Your task to perform on an android device: toggle javascript in the chrome app Image 0: 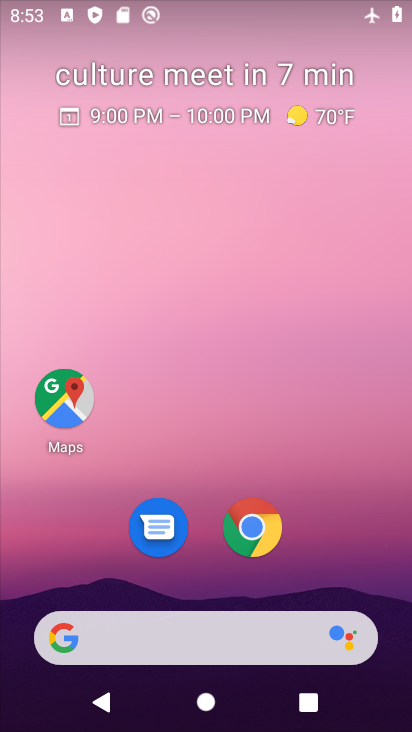
Step 0: drag from (217, 549) to (221, 259)
Your task to perform on an android device: toggle javascript in the chrome app Image 1: 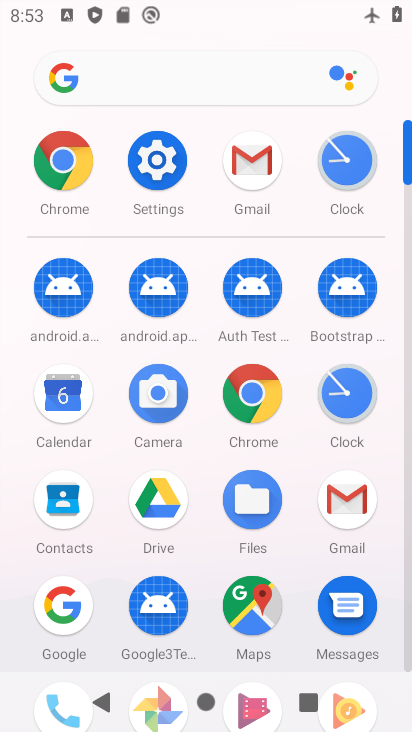
Step 1: click (73, 175)
Your task to perform on an android device: toggle javascript in the chrome app Image 2: 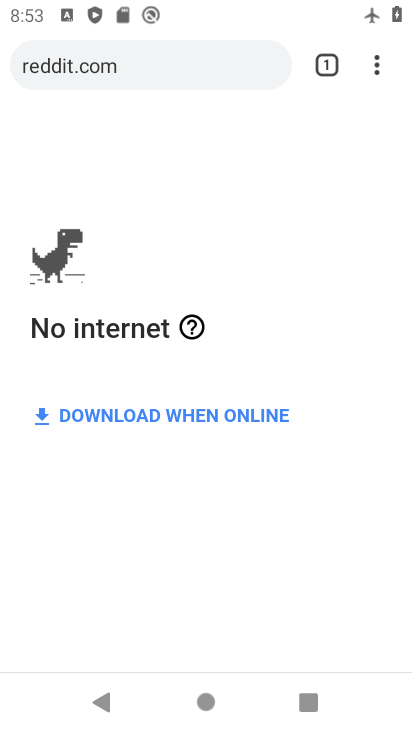
Step 2: click (370, 63)
Your task to perform on an android device: toggle javascript in the chrome app Image 3: 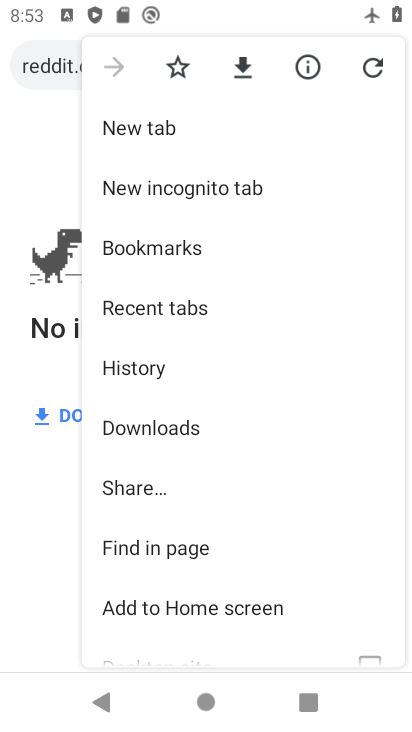
Step 3: drag from (228, 435) to (265, 26)
Your task to perform on an android device: toggle javascript in the chrome app Image 4: 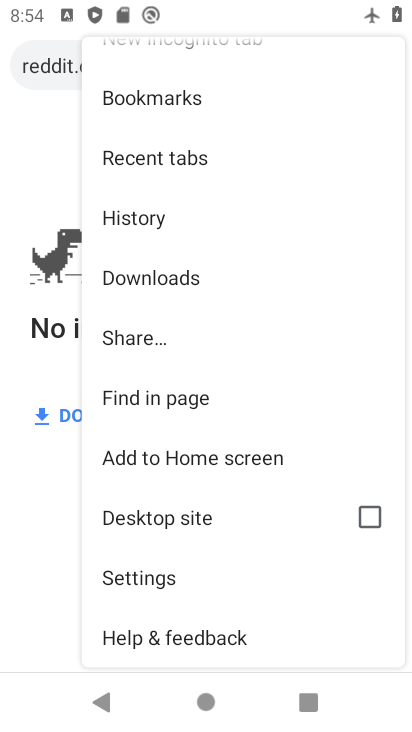
Step 4: click (167, 570)
Your task to perform on an android device: toggle javascript in the chrome app Image 5: 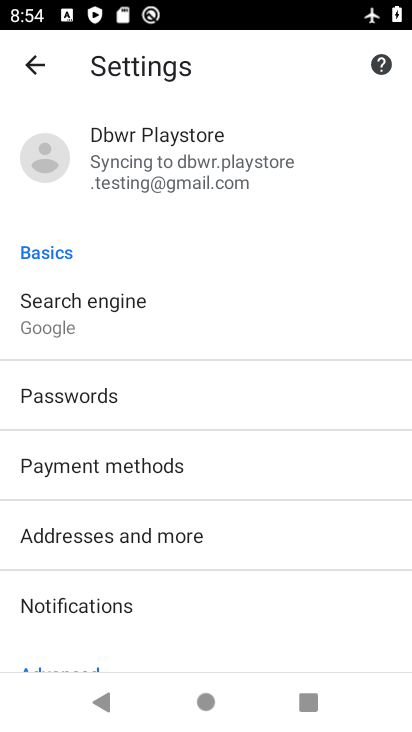
Step 5: drag from (214, 510) to (219, 438)
Your task to perform on an android device: toggle javascript in the chrome app Image 6: 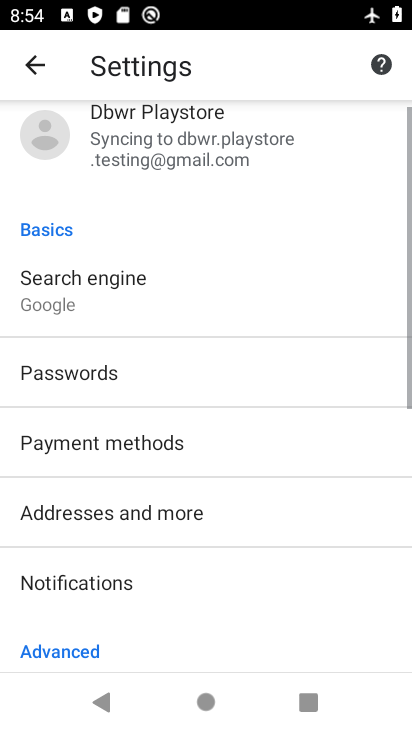
Step 6: drag from (234, 344) to (254, 220)
Your task to perform on an android device: toggle javascript in the chrome app Image 7: 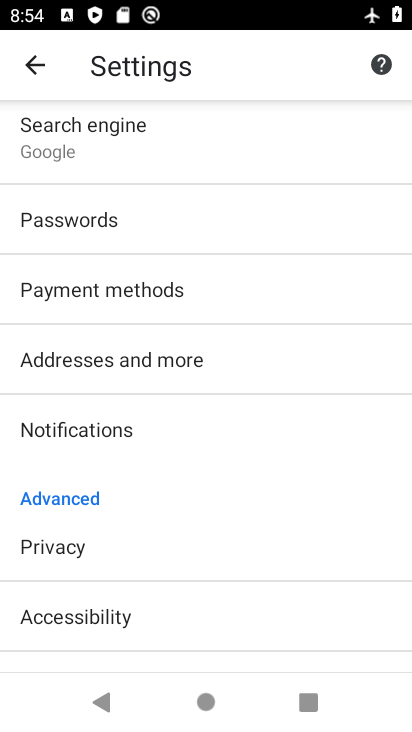
Step 7: drag from (143, 550) to (197, 272)
Your task to perform on an android device: toggle javascript in the chrome app Image 8: 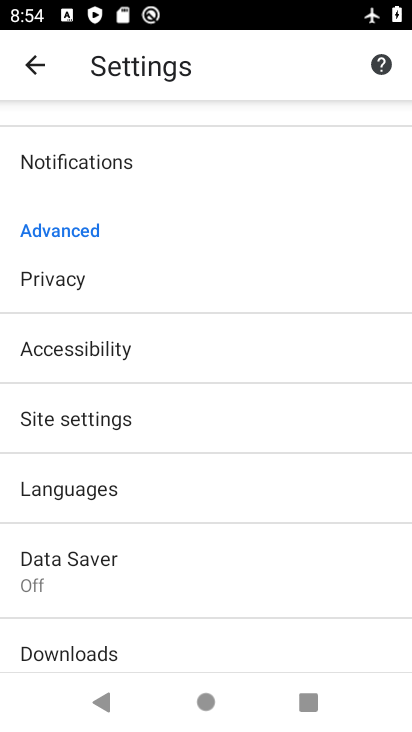
Step 8: click (115, 418)
Your task to perform on an android device: toggle javascript in the chrome app Image 9: 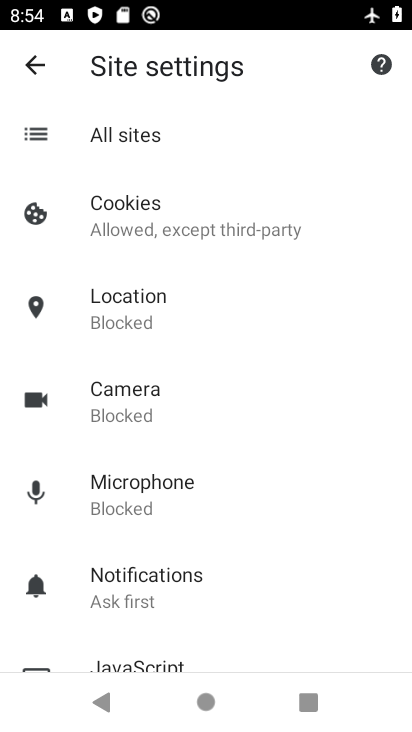
Step 9: drag from (164, 592) to (194, 384)
Your task to perform on an android device: toggle javascript in the chrome app Image 10: 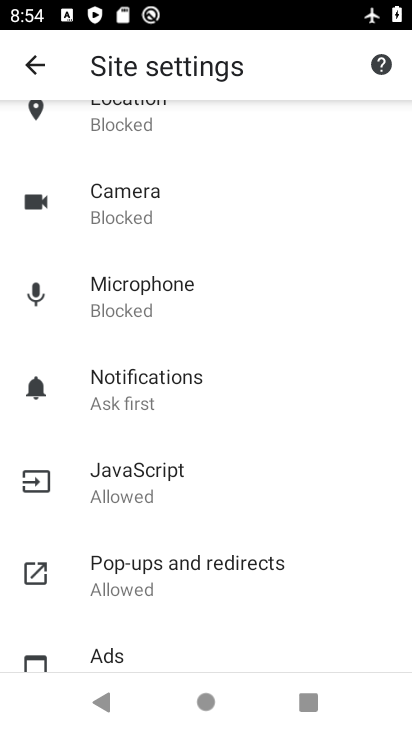
Step 10: click (179, 489)
Your task to perform on an android device: toggle javascript in the chrome app Image 11: 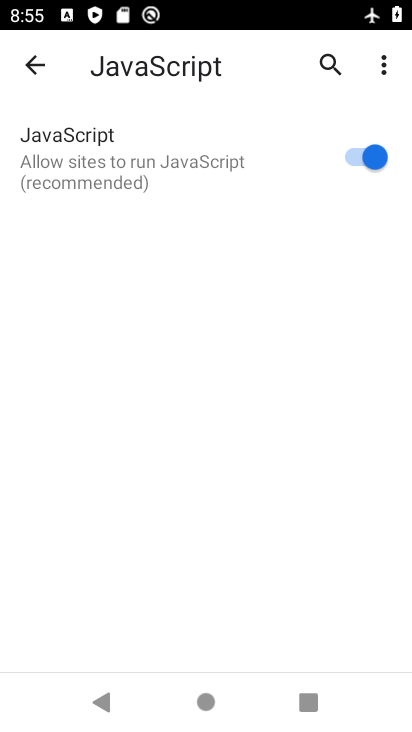
Step 11: click (331, 168)
Your task to perform on an android device: toggle javascript in the chrome app Image 12: 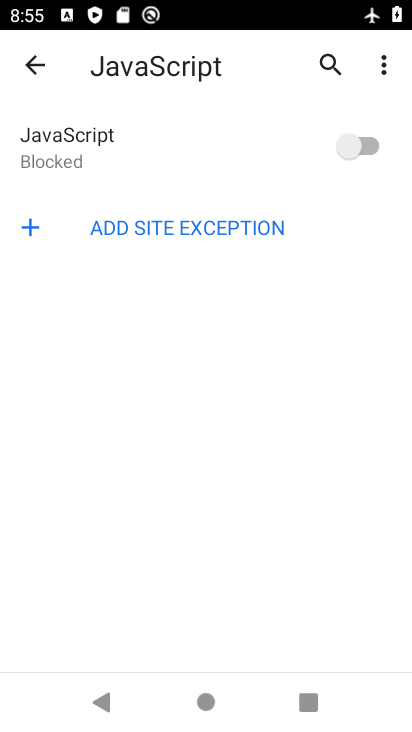
Step 12: task complete